Your task to perform on an android device: Go to location settings Image 0: 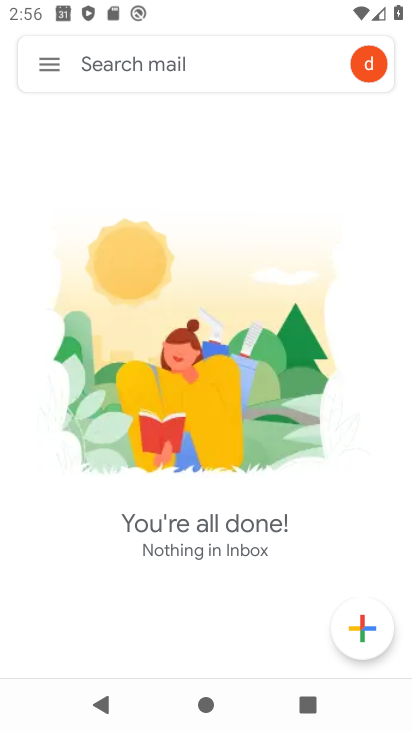
Step 0: press home button
Your task to perform on an android device: Go to location settings Image 1: 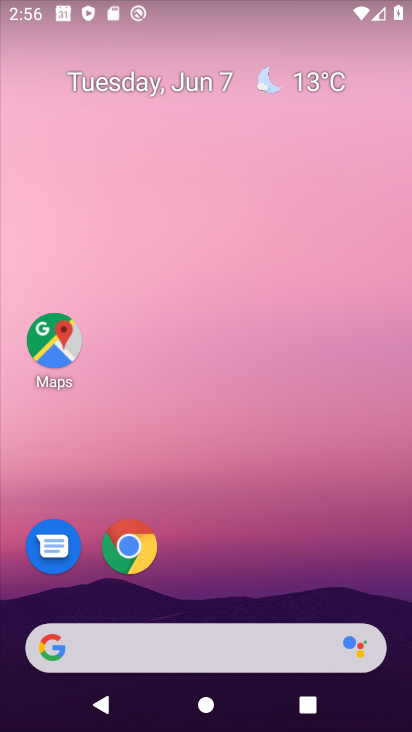
Step 1: drag from (227, 608) to (269, 243)
Your task to perform on an android device: Go to location settings Image 2: 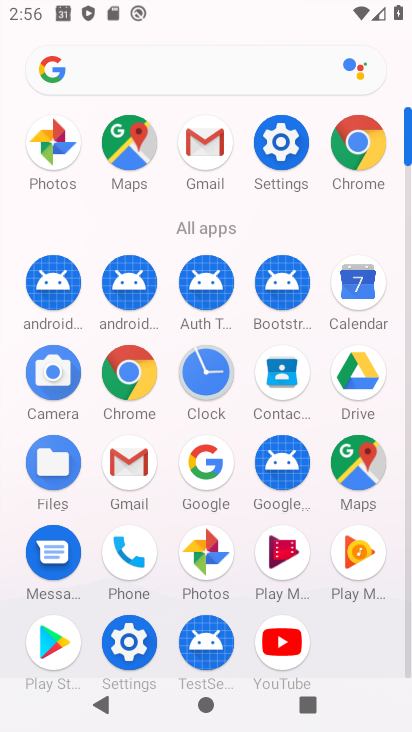
Step 2: click (127, 648)
Your task to perform on an android device: Go to location settings Image 3: 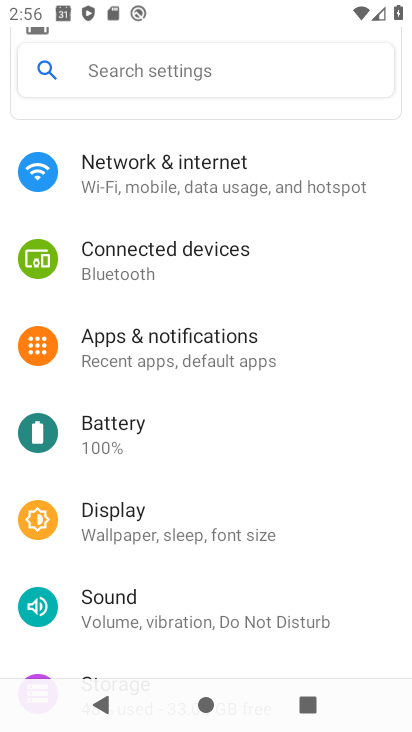
Step 3: drag from (150, 580) to (191, 202)
Your task to perform on an android device: Go to location settings Image 4: 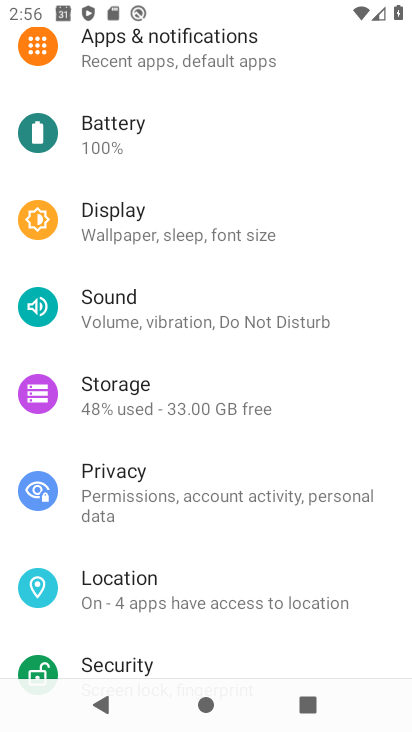
Step 4: click (134, 585)
Your task to perform on an android device: Go to location settings Image 5: 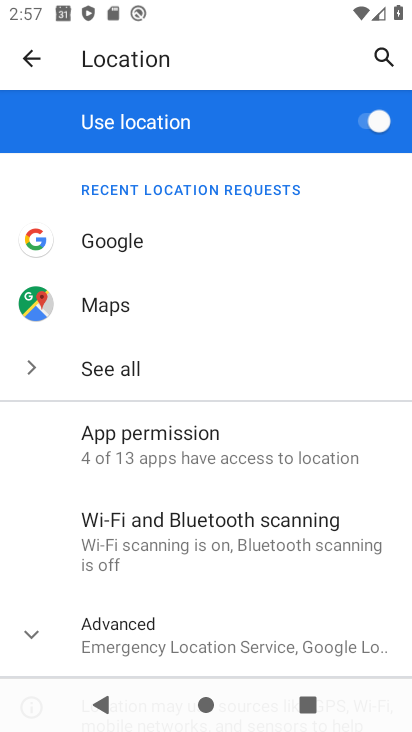
Step 5: task complete